Your task to perform on an android device: change the upload size in google photos Image 0: 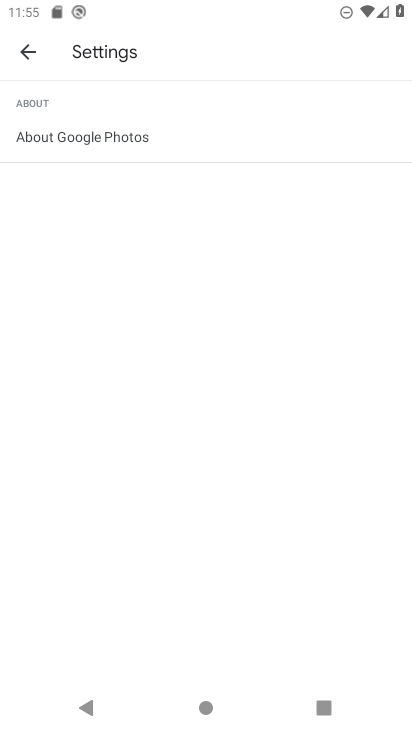
Step 0: press home button
Your task to perform on an android device: change the upload size in google photos Image 1: 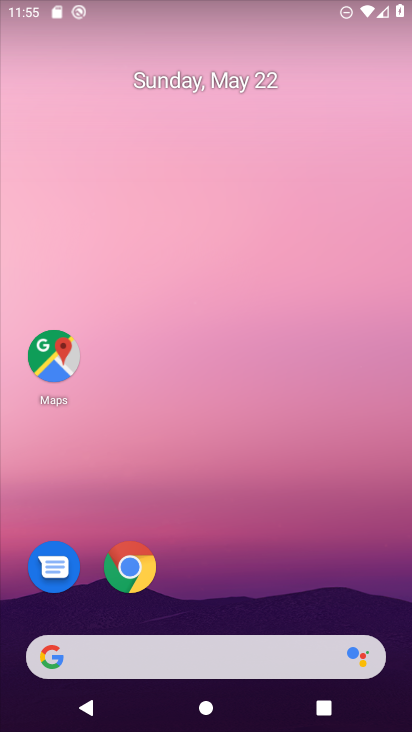
Step 1: drag from (195, 615) to (323, 50)
Your task to perform on an android device: change the upload size in google photos Image 2: 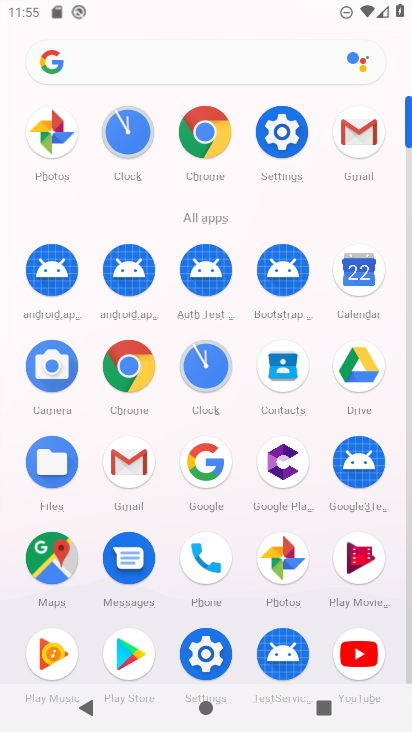
Step 2: click (44, 127)
Your task to perform on an android device: change the upload size in google photos Image 3: 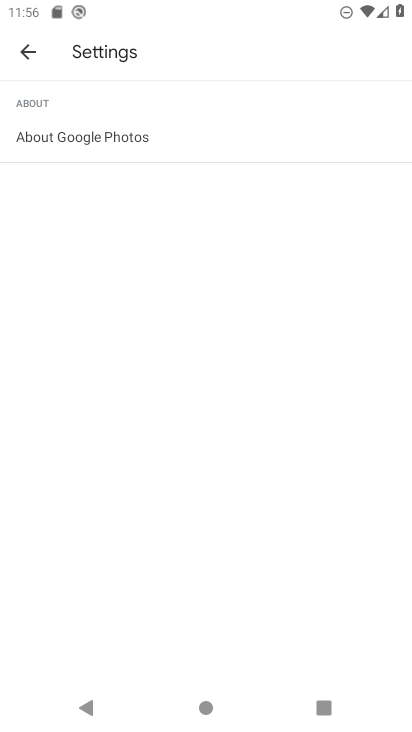
Step 3: press home button
Your task to perform on an android device: change the upload size in google photos Image 4: 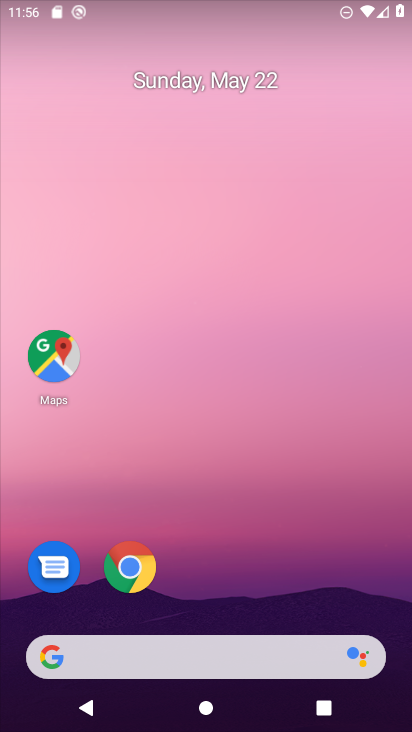
Step 4: drag from (191, 629) to (201, 153)
Your task to perform on an android device: change the upload size in google photos Image 5: 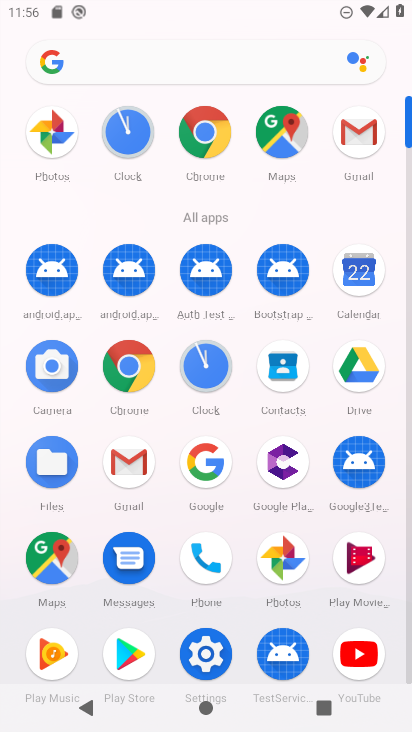
Step 5: click (48, 145)
Your task to perform on an android device: change the upload size in google photos Image 6: 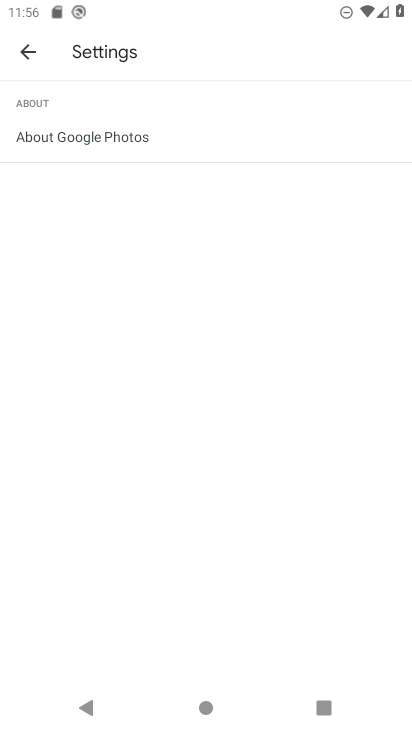
Step 6: click (38, 55)
Your task to perform on an android device: change the upload size in google photos Image 7: 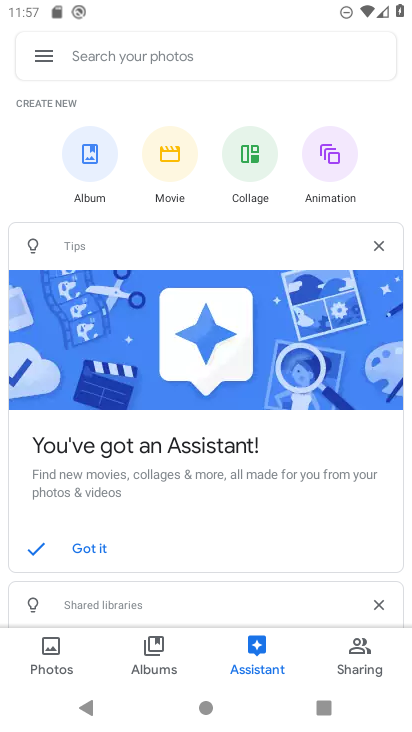
Step 7: click (55, 61)
Your task to perform on an android device: change the upload size in google photos Image 8: 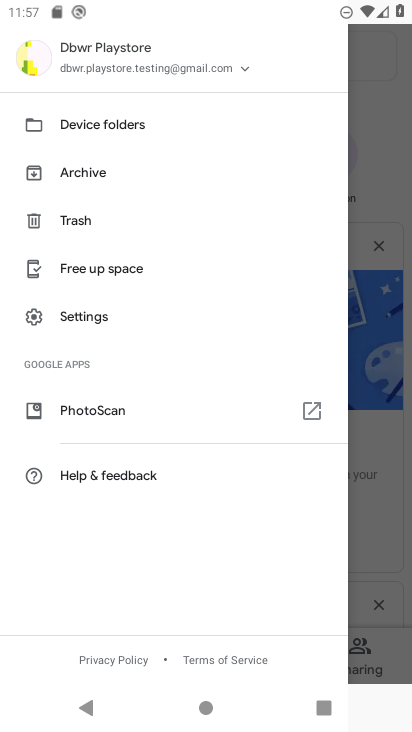
Step 8: click (100, 318)
Your task to perform on an android device: change the upload size in google photos Image 9: 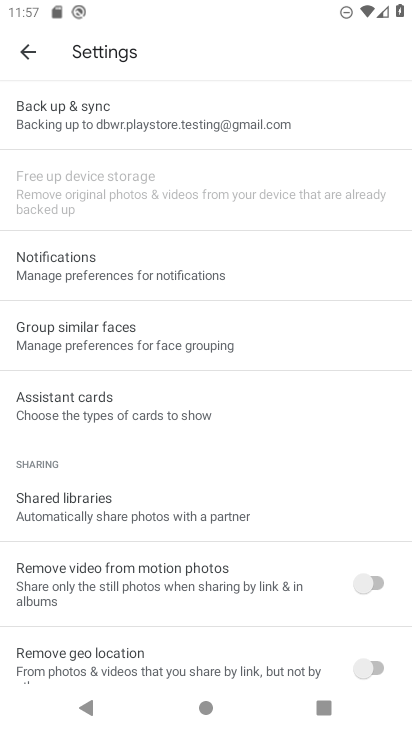
Step 9: click (205, 133)
Your task to perform on an android device: change the upload size in google photos Image 10: 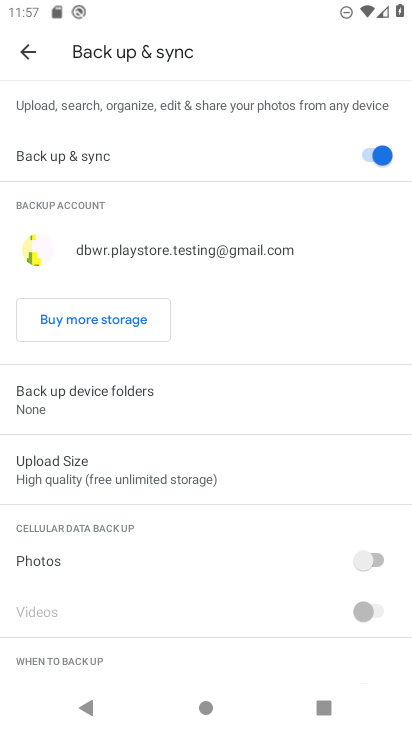
Step 10: click (104, 469)
Your task to perform on an android device: change the upload size in google photos Image 11: 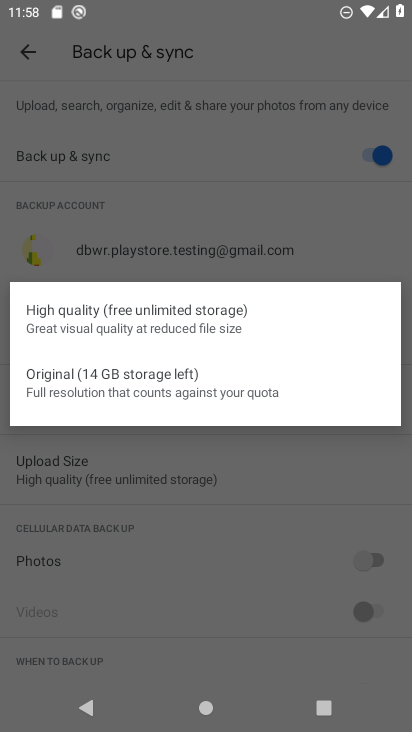
Step 11: click (98, 375)
Your task to perform on an android device: change the upload size in google photos Image 12: 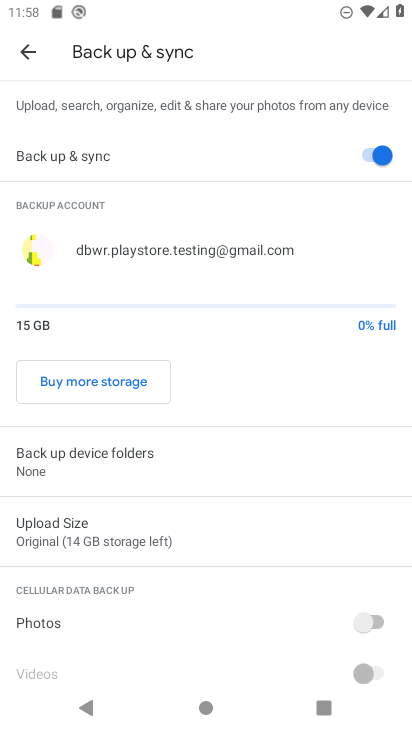
Step 12: task complete